Your task to perform on an android device: stop showing notifications on the lock screen Image 0: 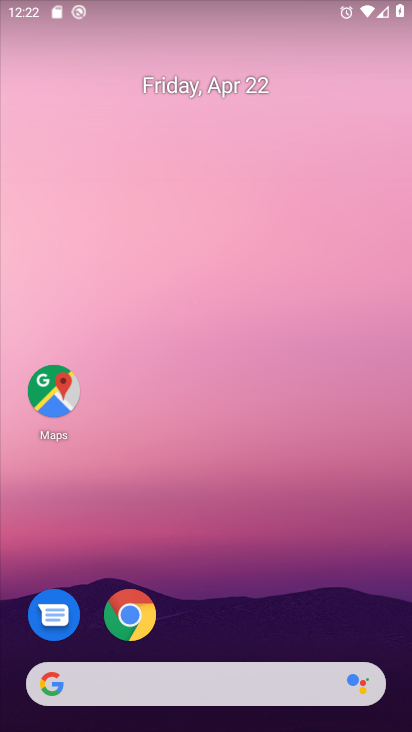
Step 0: drag from (277, 648) to (259, 141)
Your task to perform on an android device: stop showing notifications on the lock screen Image 1: 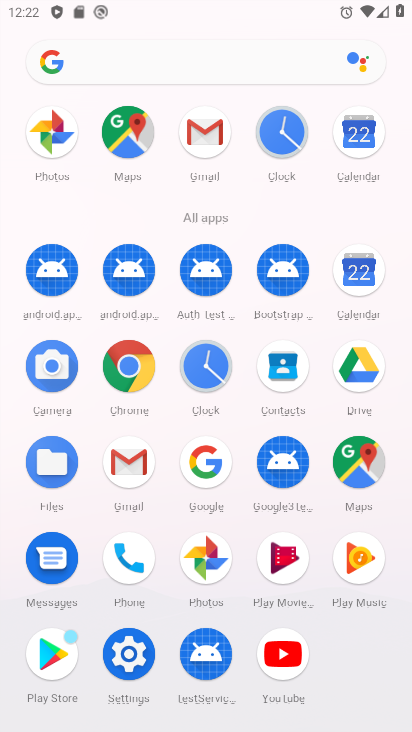
Step 1: click (139, 645)
Your task to perform on an android device: stop showing notifications on the lock screen Image 2: 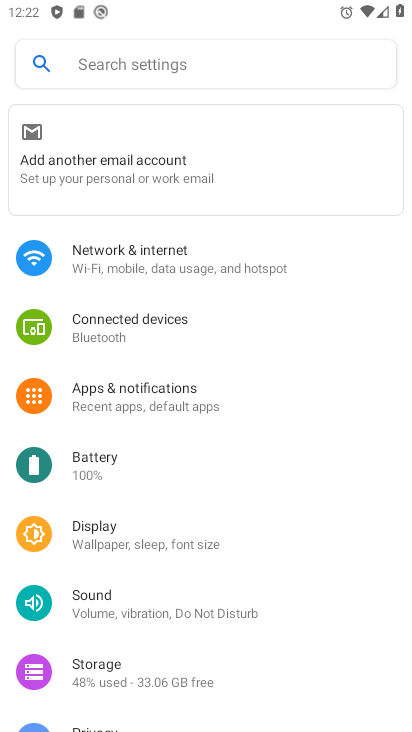
Step 2: click (190, 392)
Your task to perform on an android device: stop showing notifications on the lock screen Image 3: 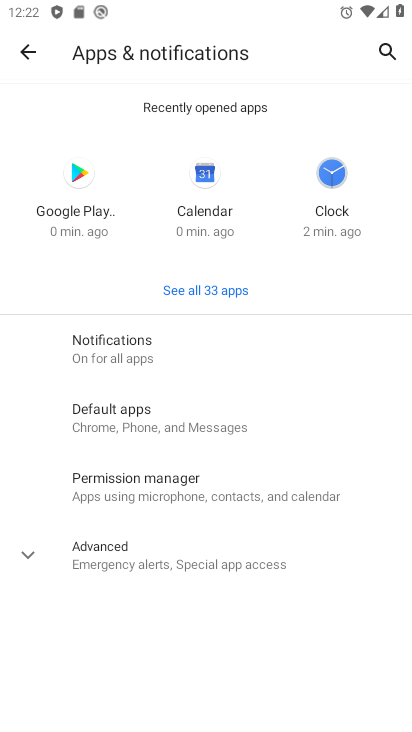
Step 3: click (145, 356)
Your task to perform on an android device: stop showing notifications on the lock screen Image 4: 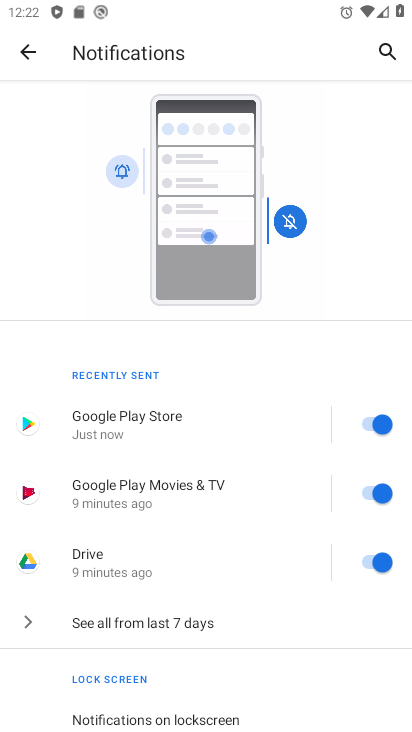
Step 4: click (175, 709)
Your task to perform on an android device: stop showing notifications on the lock screen Image 5: 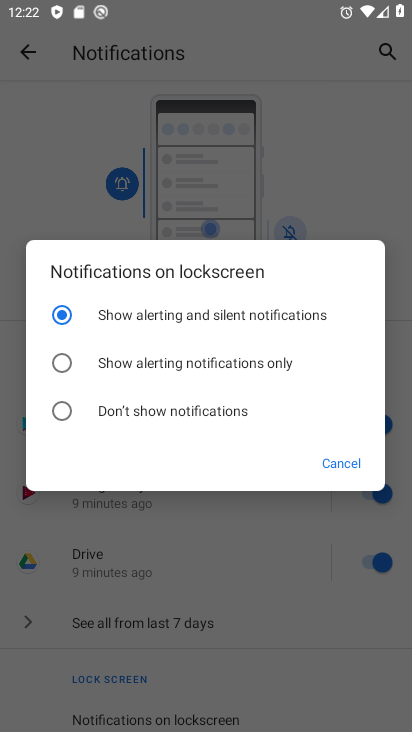
Step 5: click (147, 410)
Your task to perform on an android device: stop showing notifications on the lock screen Image 6: 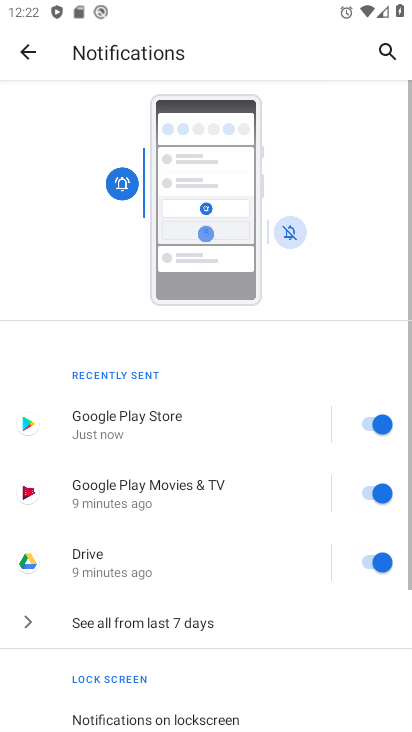
Step 6: task complete